Your task to perform on an android device: change keyboard looks Image 0: 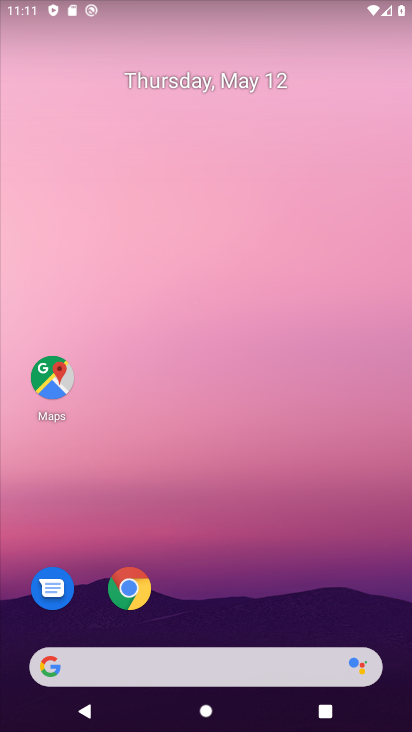
Step 0: drag from (169, 641) to (247, 123)
Your task to perform on an android device: change keyboard looks Image 1: 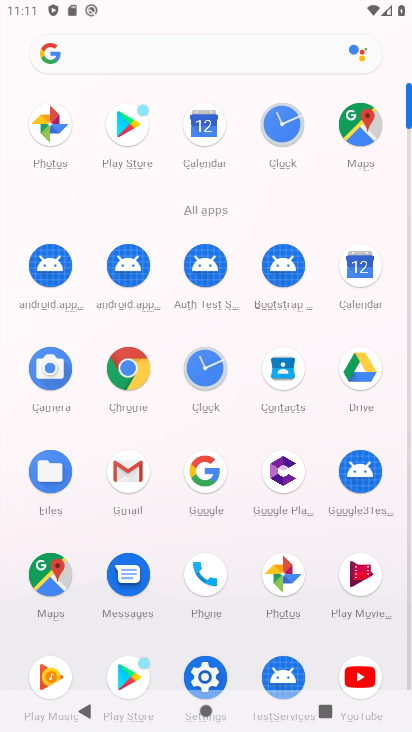
Step 1: click (209, 666)
Your task to perform on an android device: change keyboard looks Image 2: 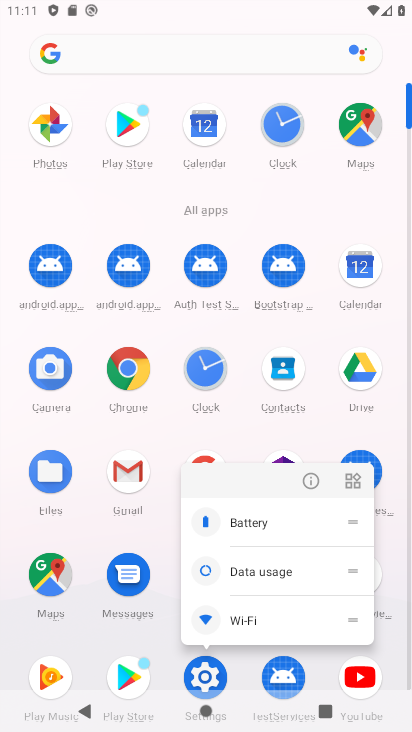
Step 2: click (311, 475)
Your task to perform on an android device: change keyboard looks Image 3: 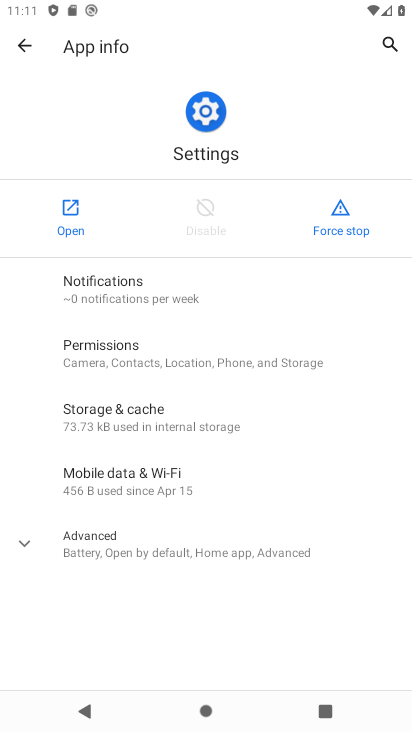
Step 3: click (77, 242)
Your task to perform on an android device: change keyboard looks Image 4: 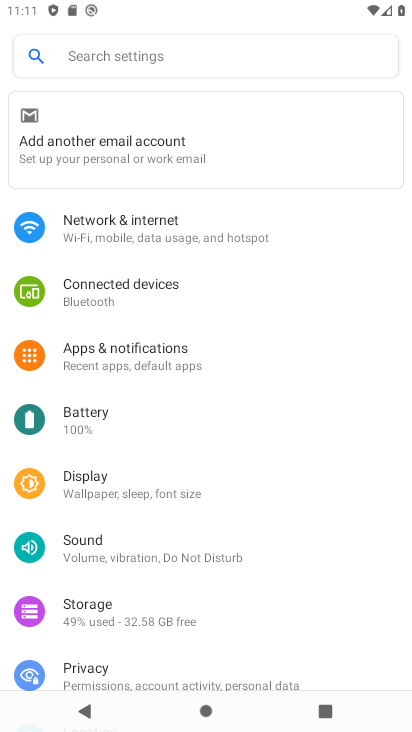
Step 4: drag from (185, 531) to (345, 66)
Your task to perform on an android device: change keyboard looks Image 5: 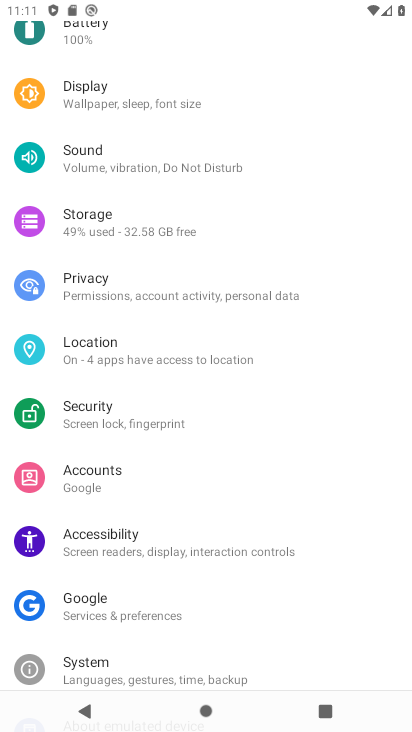
Step 5: drag from (218, 452) to (288, 279)
Your task to perform on an android device: change keyboard looks Image 6: 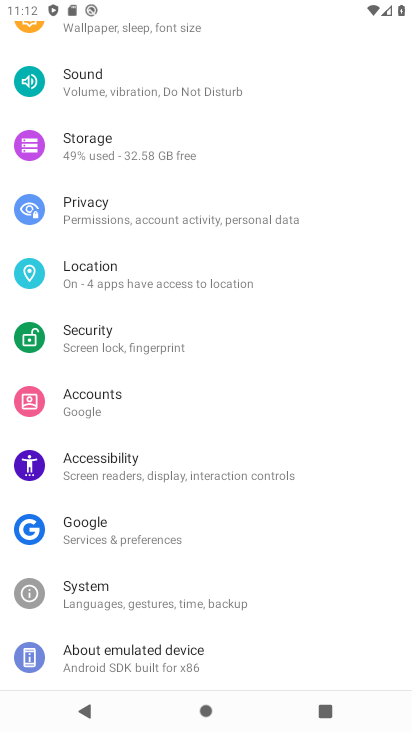
Step 6: click (149, 614)
Your task to perform on an android device: change keyboard looks Image 7: 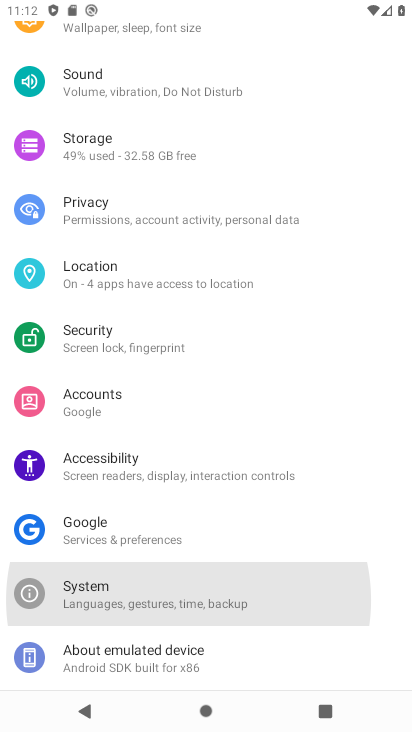
Step 7: click (147, 612)
Your task to perform on an android device: change keyboard looks Image 8: 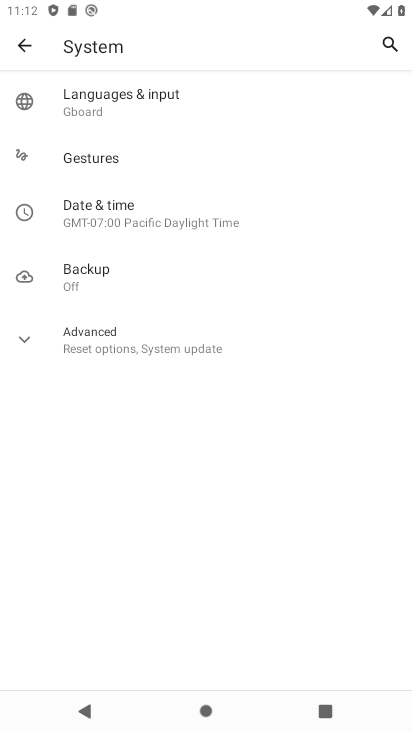
Step 8: click (206, 108)
Your task to perform on an android device: change keyboard looks Image 9: 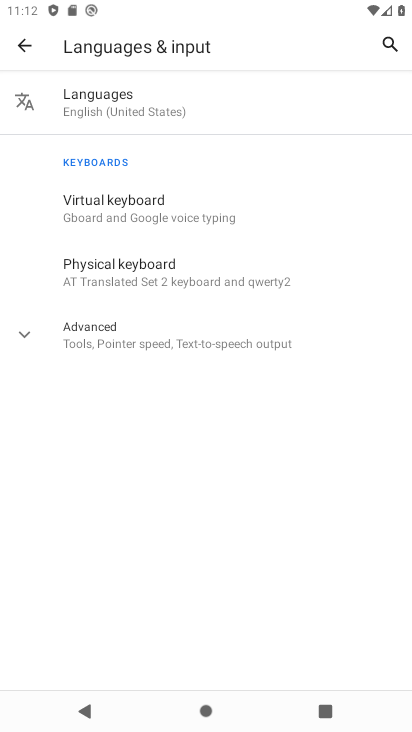
Step 9: click (237, 105)
Your task to perform on an android device: change keyboard looks Image 10: 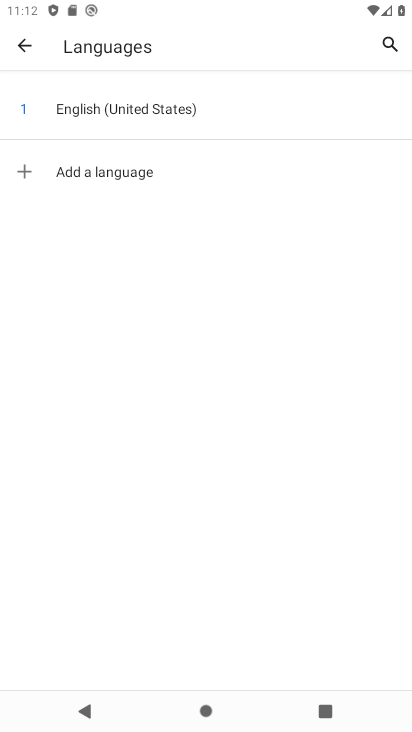
Step 10: press back button
Your task to perform on an android device: change keyboard looks Image 11: 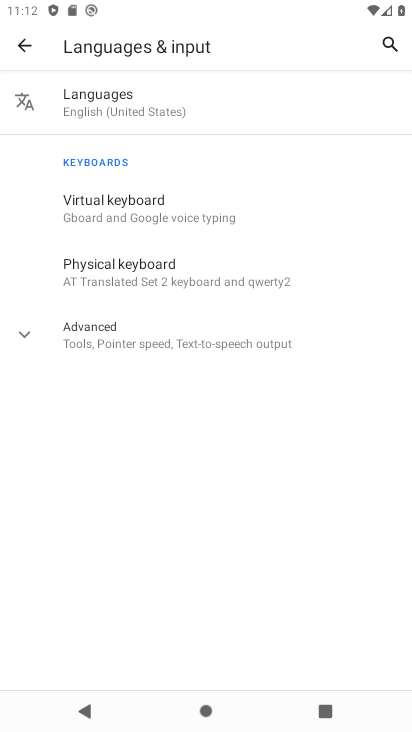
Step 11: click (154, 188)
Your task to perform on an android device: change keyboard looks Image 12: 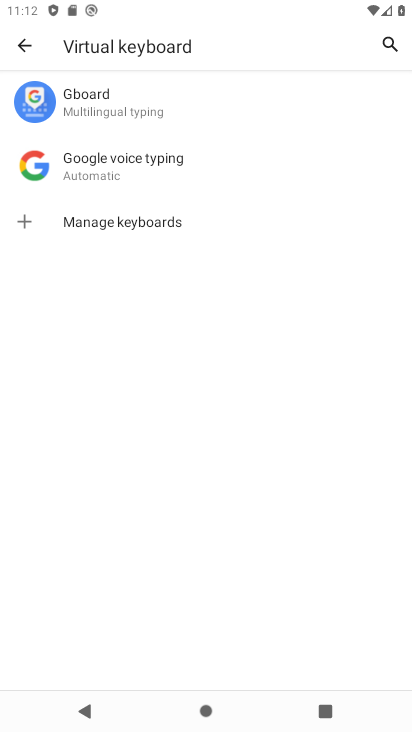
Step 12: click (168, 107)
Your task to perform on an android device: change keyboard looks Image 13: 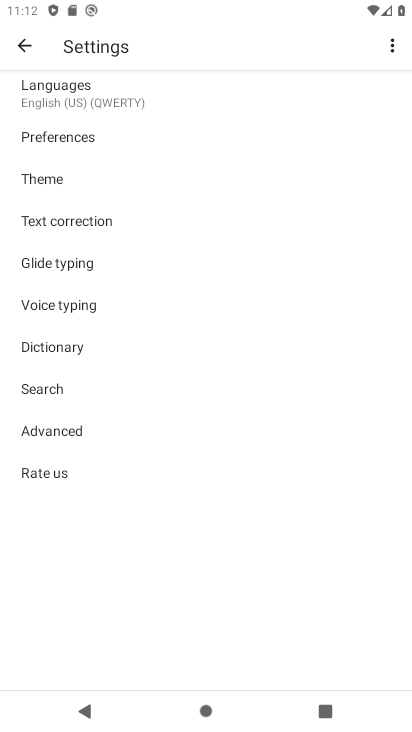
Step 13: click (45, 182)
Your task to perform on an android device: change keyboard looks Image 14: 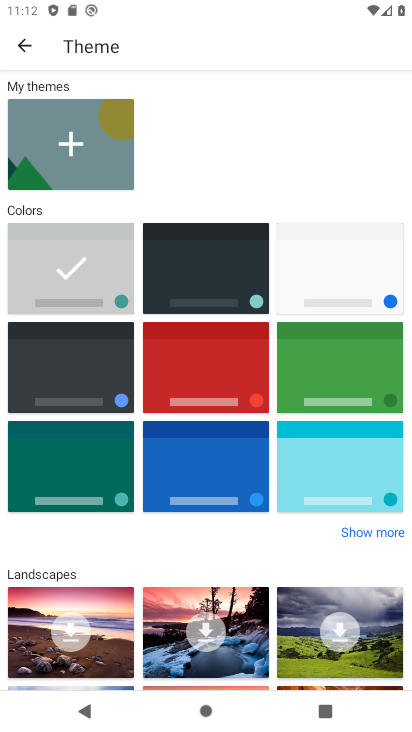
Step 14: click (98, 354)
Your task to perform on an android device: change keyboard looks Image 15: 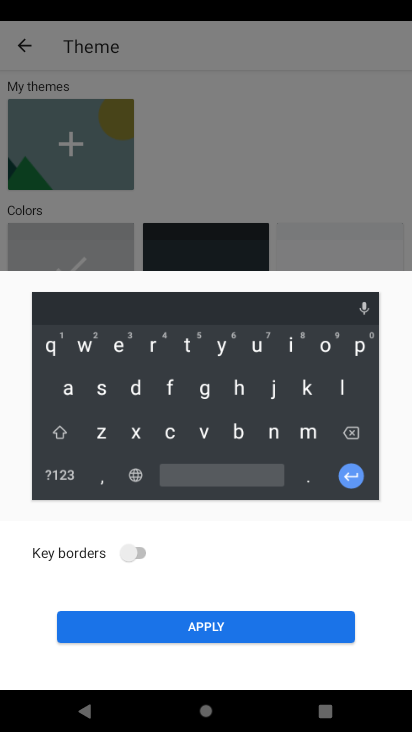
Step 15: click (191, 633)
Your task to perform on an android device: change keyboard looks Image 16: 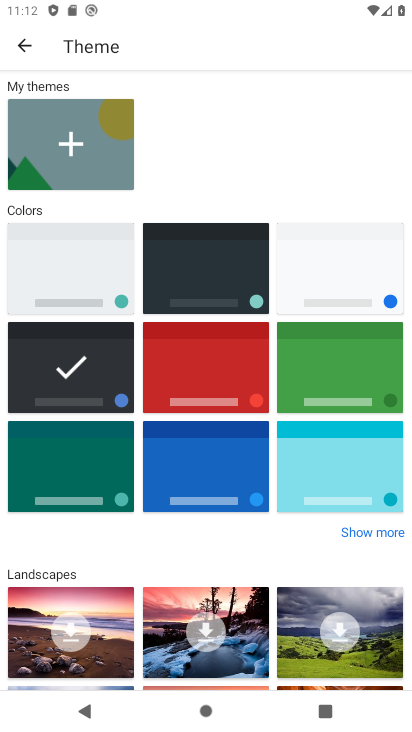
Step 16: task complete